Your task to perform on an android device: Open accessibility settings Image 0: 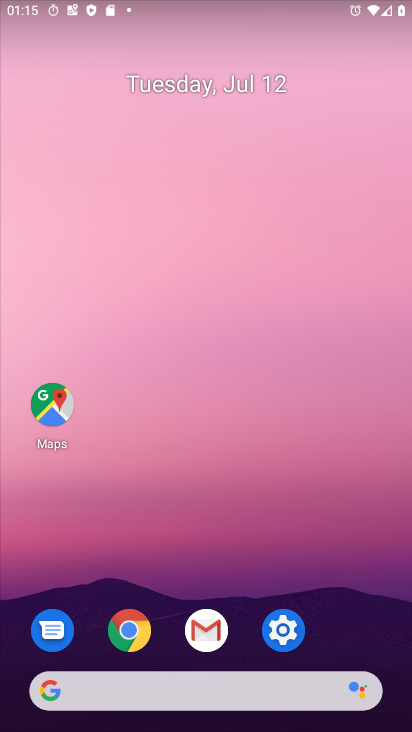
Step 0: click (293, 638)
Your task to perform on an android device: Open accessibility settings Image 1: 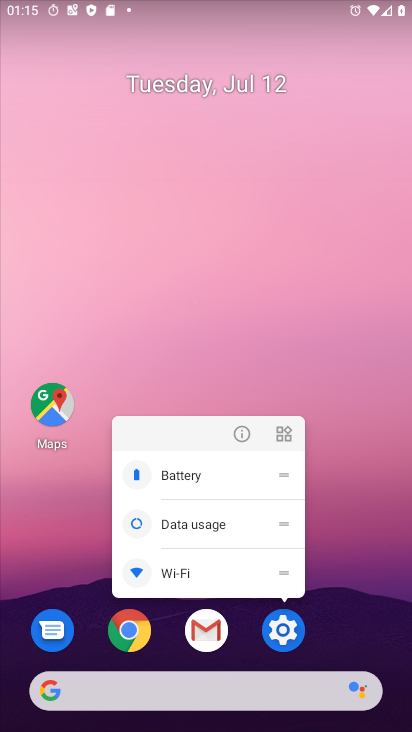
Step 1: click (284, 637)
Your task to perform on an android device: Open accessibility settings Image 2: 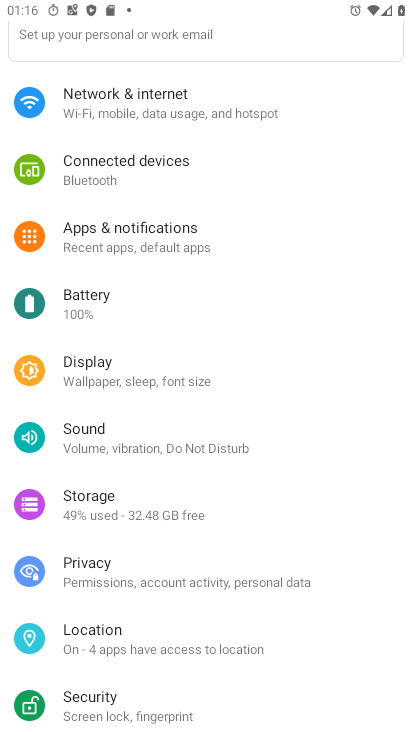
Step 2: drag from (223, 422) to (231, 501)
Your task to perform on an android device: Open accessibility settings Image 3: 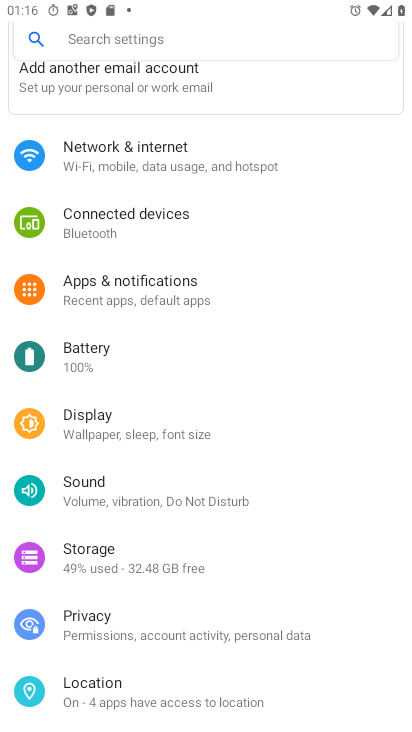
Step 3: click (89, 45)
Your task to perform on an android device: Open accessibility settings Image 4: 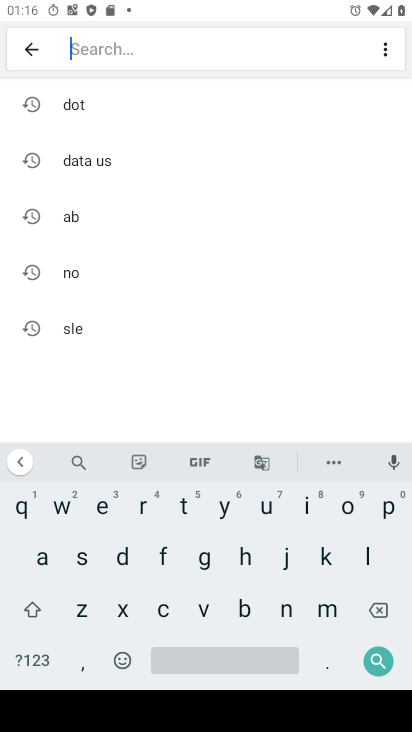
Step 4: click (46, 561)
Your task to perform on an android device: Open accessibility settings Image 5: 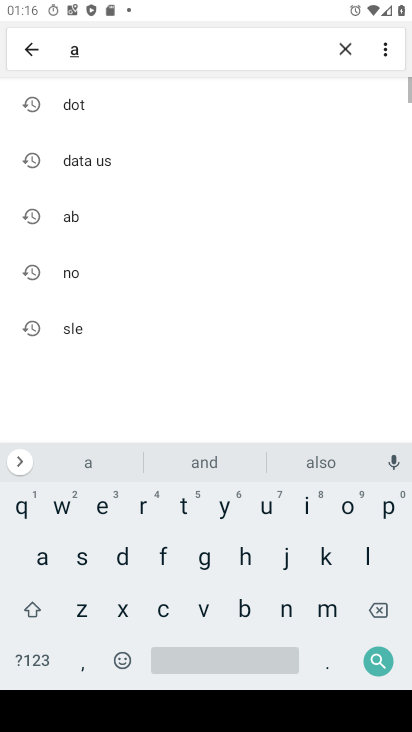
Step 5: click (164, 609)
Your task to perform on an android device: Open accessibility settings Image 6: 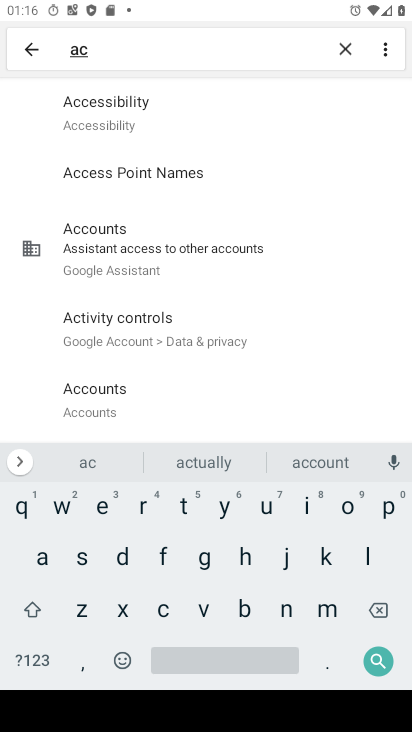
Step 6: click (173, 120)
Your task to perform on an android device: Open accessibility settings Image 7: 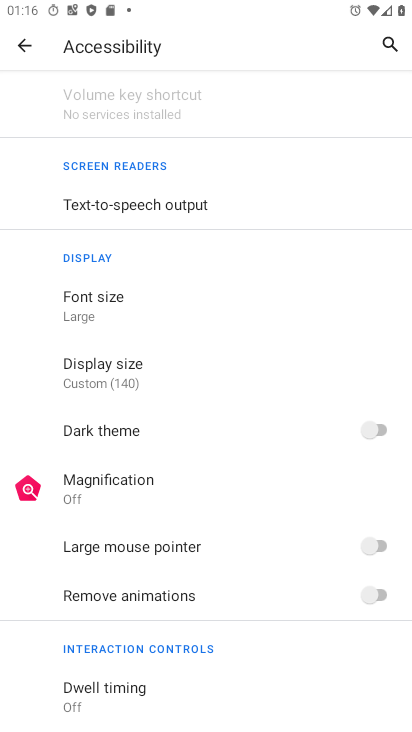
Step 7: task complete